Your task to perform on an android device: set the timer Image 0: 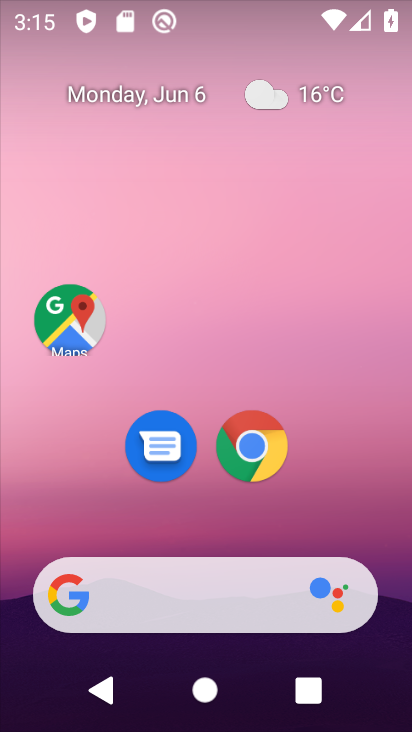
Step 0: drag from (91, 575) to (243, 0)
Your task to perform on an android device: set the timer Image 1: 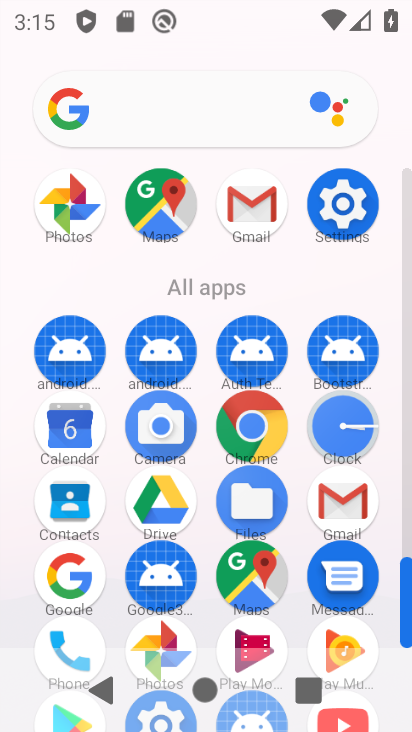
Step 1: click (360, 430)
Your task to perform on an android device: set the timer Image 2: 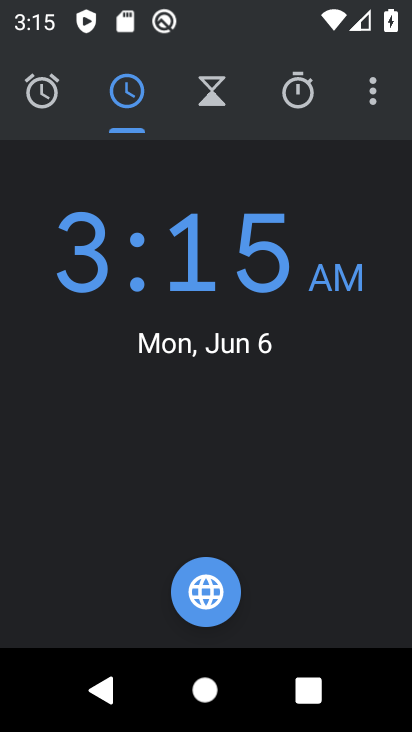
Step 2: click (209, 125)
Your task to perform on an android device: set the timer Image 3: 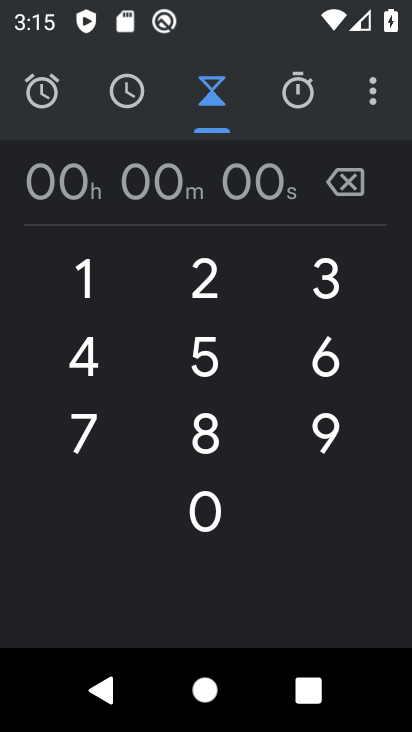
Step 3: click (210, 346)
Your task to perform on an android device: set the timer Image 4: 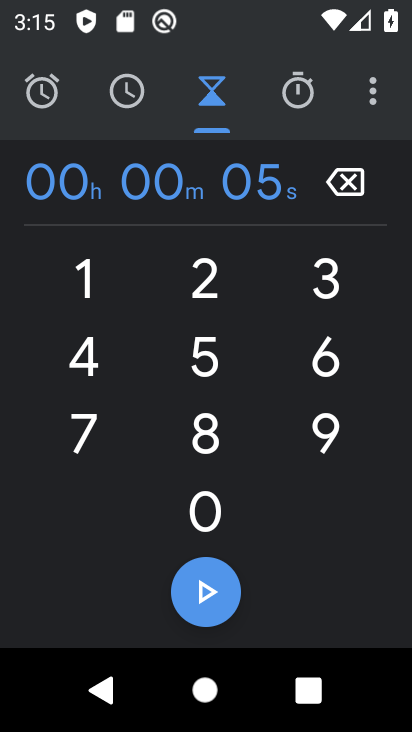
Step 4: click (201, 523)
Your task to perform on an android device: set the timer Image 5: 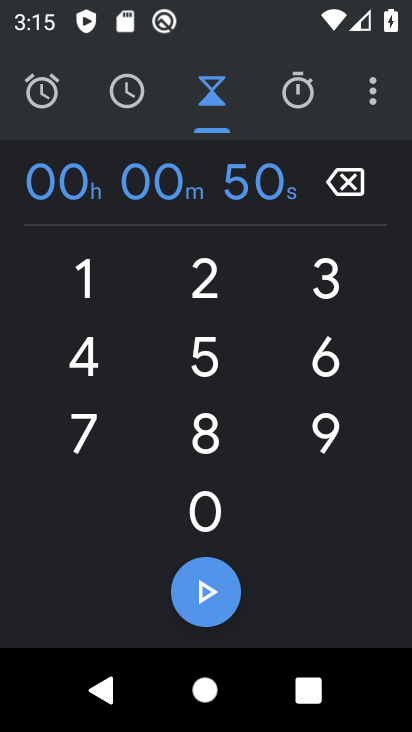
Step 5: click (208, 300)
Your task to perform on an android device: set the timer Image 6: 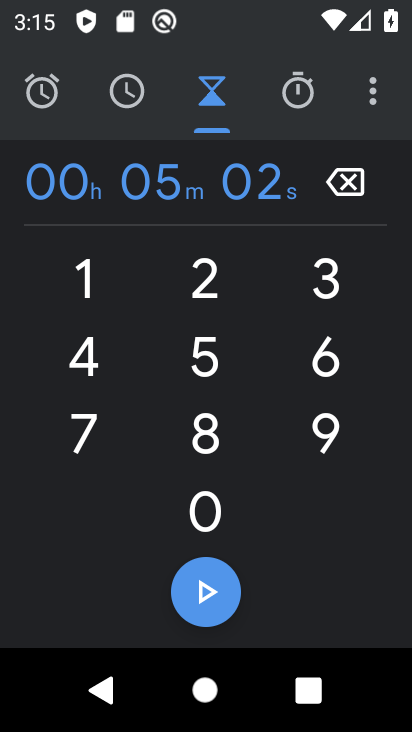
Step 6: click (211, 500)
Your task to perform on an android device: set the timer Image 7: 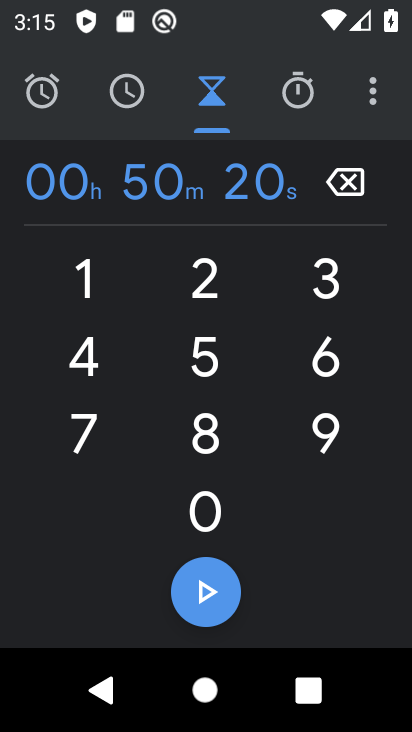
Step 7: click (211, 589)
Your task to perform on an android device: set the timer Image 8: 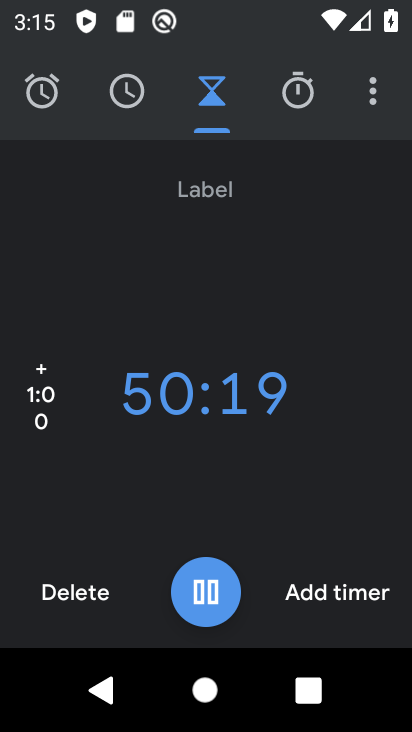
Step 8: task complete